Your task to perform on an android device: open app "Gboard" Image 0: 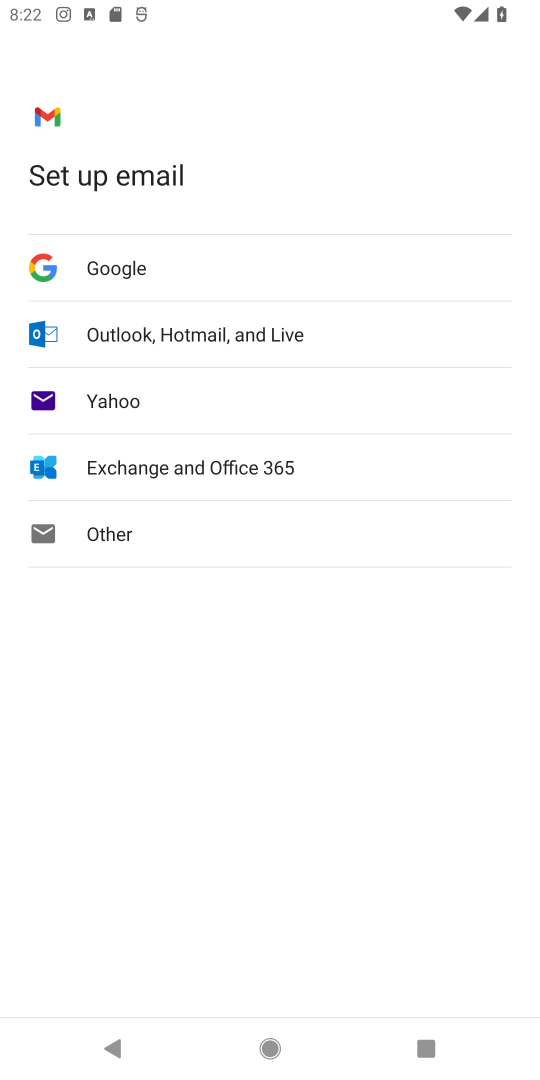
Step 0: press home button
Your task to perform on an android device: open app "Gboard" Image 1: 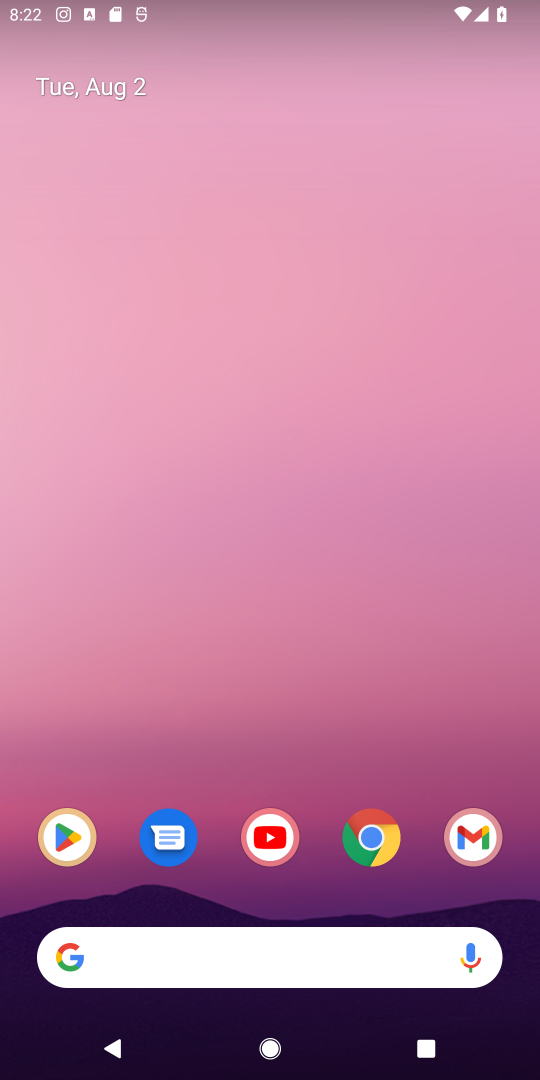
Step 1: click (73, 855)
Your task to perform on an android device: open app "Gboard" Image 2: 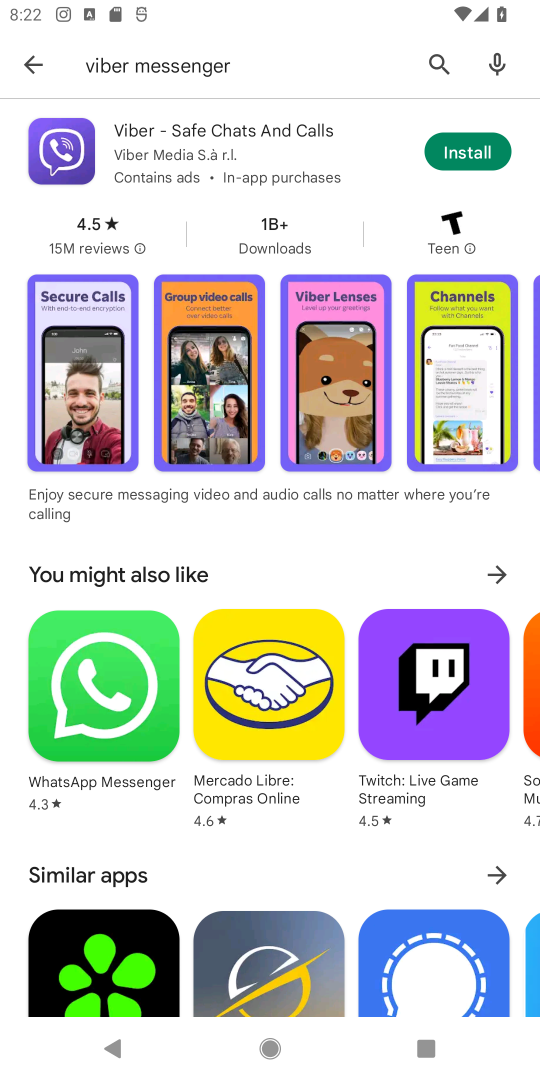
Step 2: click (443, 61)
Your task to perform on an android device: open app "Gboard" Image 3: 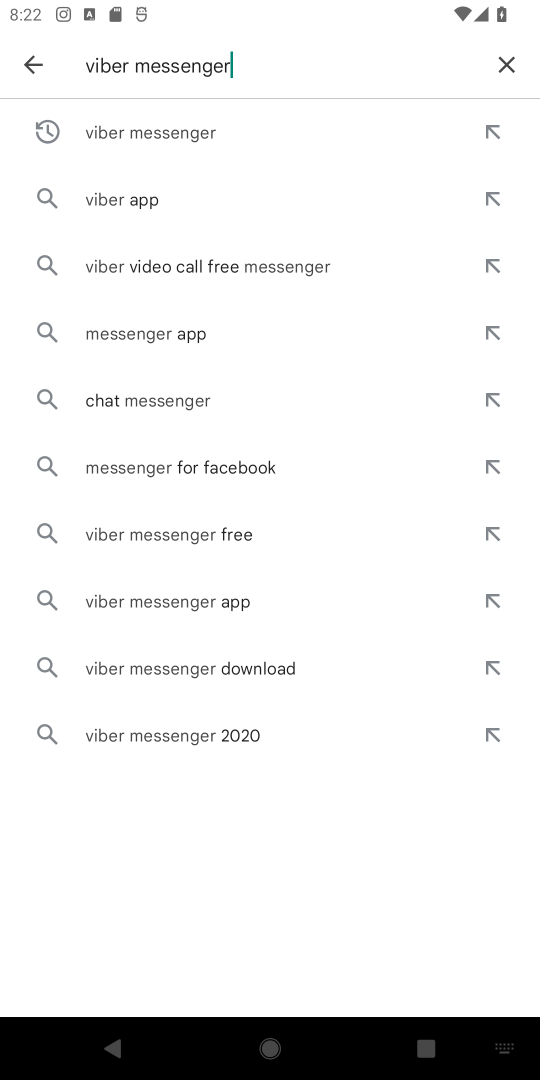
Step 3: click (525, 69)
Your task to perform on an android device: open app "Gboard" Image 4: 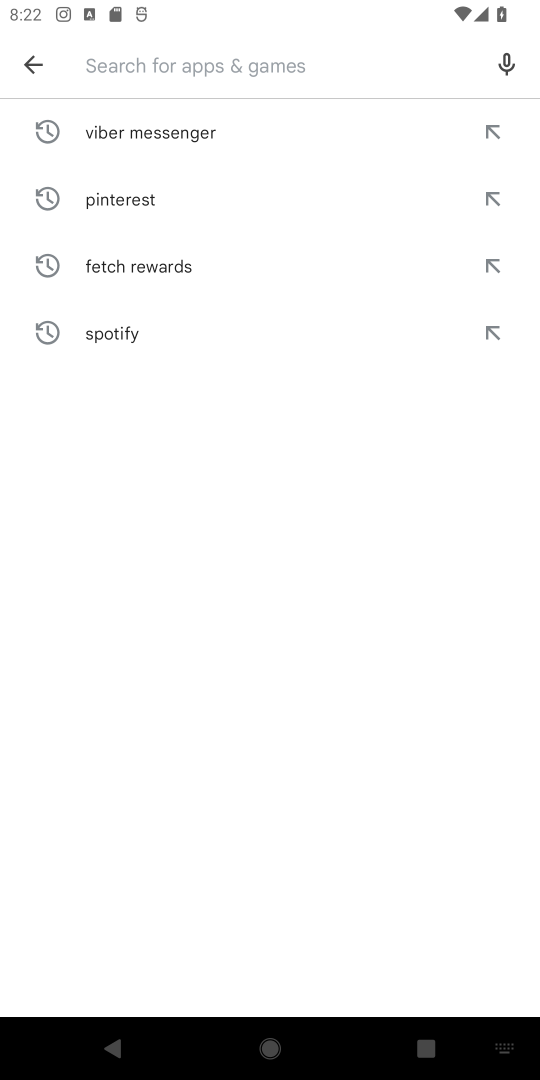
Step 4: type "Gboard"
Your task to perform on an android device: open app "Gboard" Image 5: 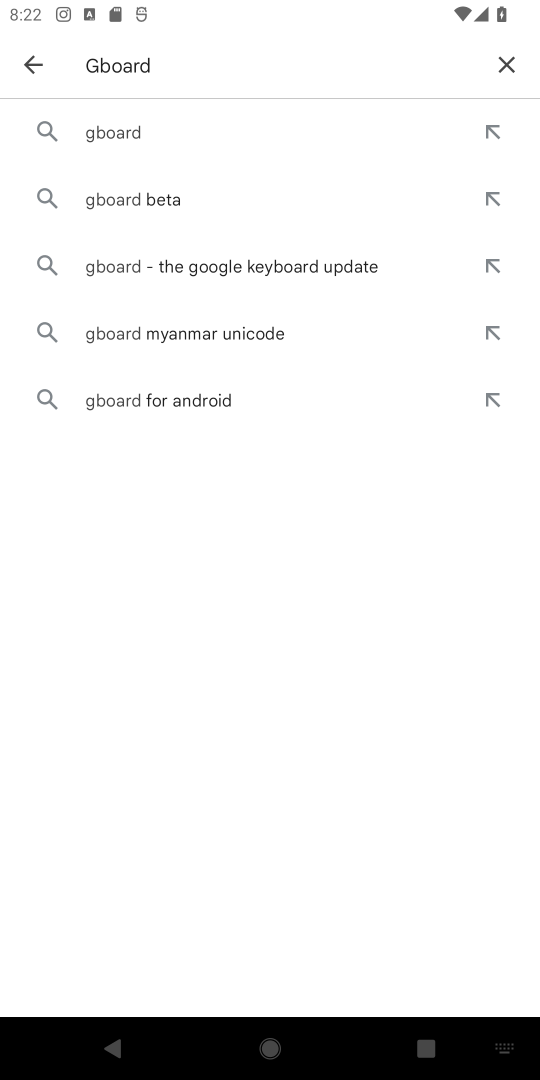
Step 5: click (139, 137)
Your task to perform on an android device: open app "Gboard" Image 6: 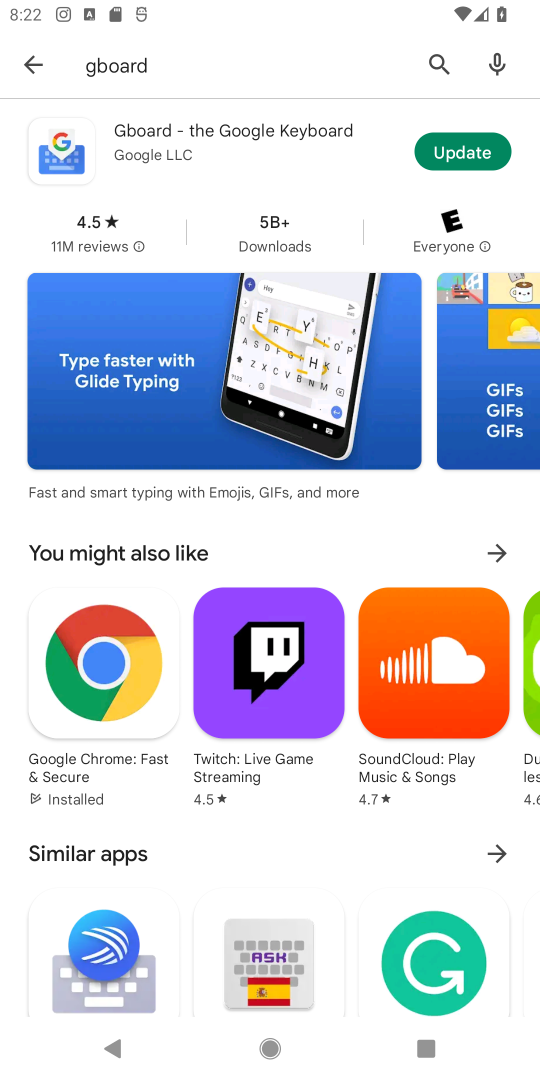
Step 6: click (151, 127)
Your task to perform on an android device: open app "Gboard" Image 7: 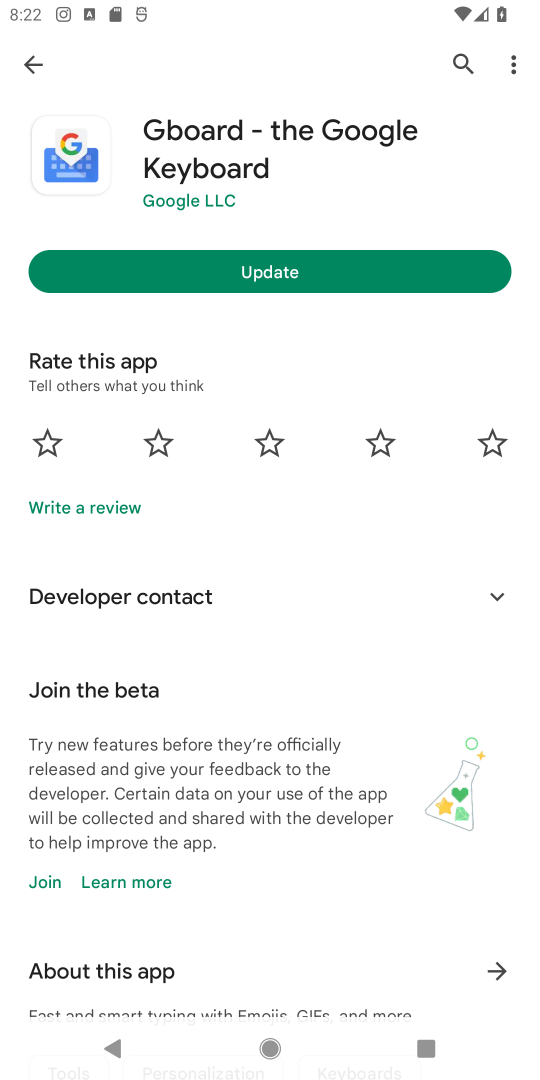
Step 7: click (190, 149)
Your task to perform on an android device: open app "Gboard" Image 8: 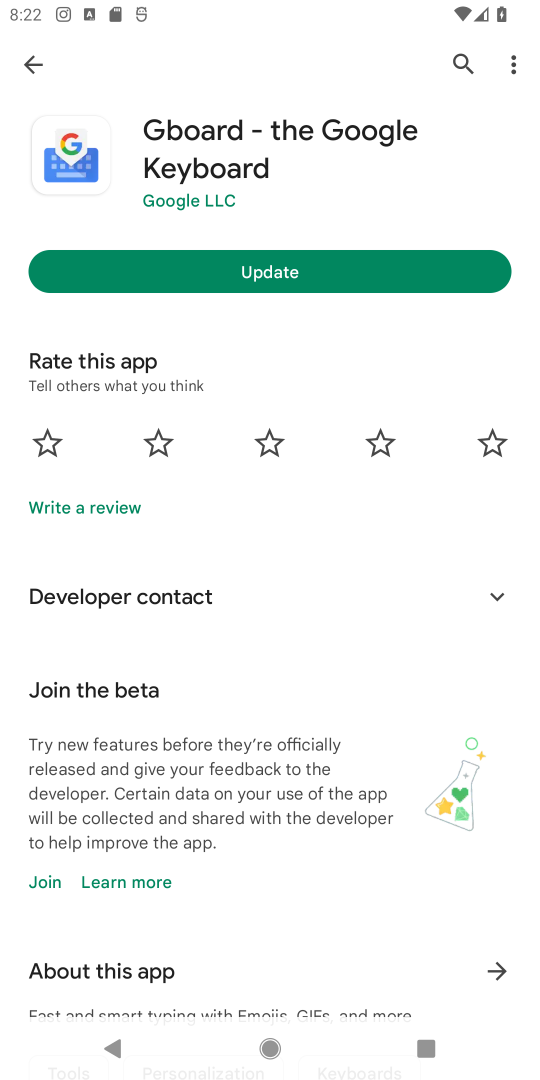
Step 8: task complete